Your task to perform on an android device: change the clock display to show seconds Image 0: 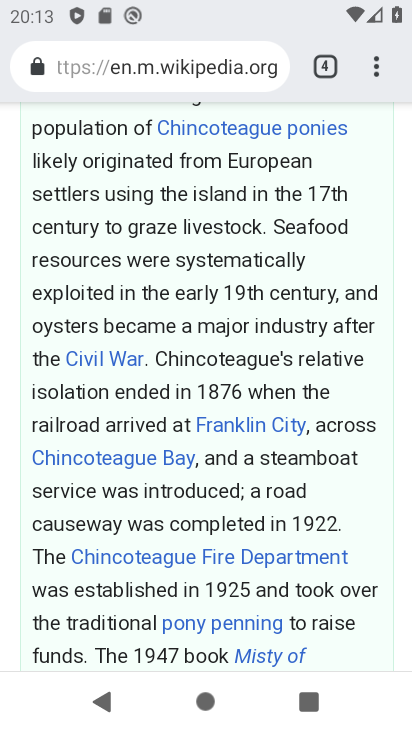
Step 0: press home button
Your task to perform on an android device: change the clock display to show seconds Image 1: 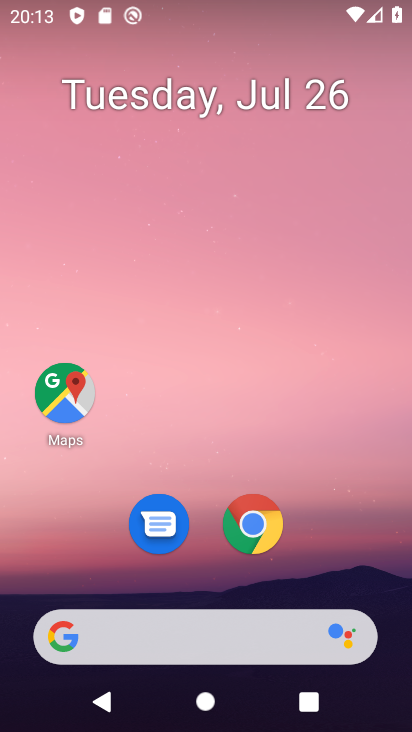
Step 1: drag from (204, 624) to (317, 87)
Your task to perform on an android device: change the clock display to show seconds Image 2: 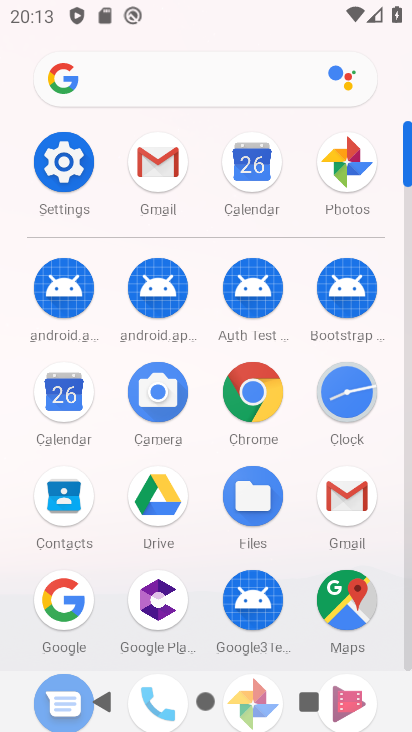
Step 2: click (343, 406)
Your task to perform on an android device: change the clock display to show seconds Image 3: 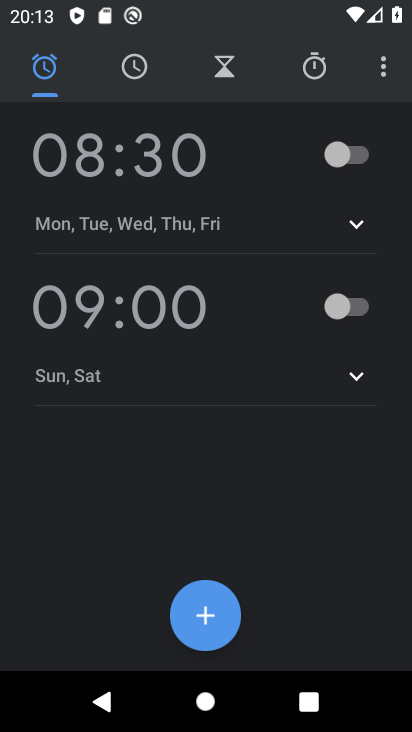
Step 3: click (379, 65)
Your task to perform on an android device: change the clock display to show seconds Image 4: 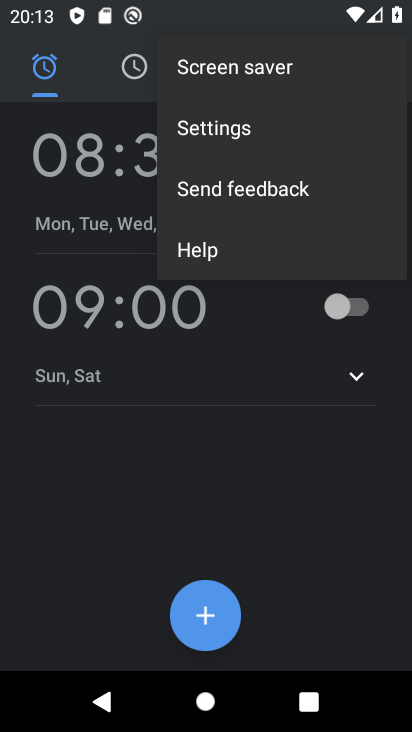
Step 4: click (239, 129)
Your task to perform on an android device: change the clock display to show seconds Image 5: 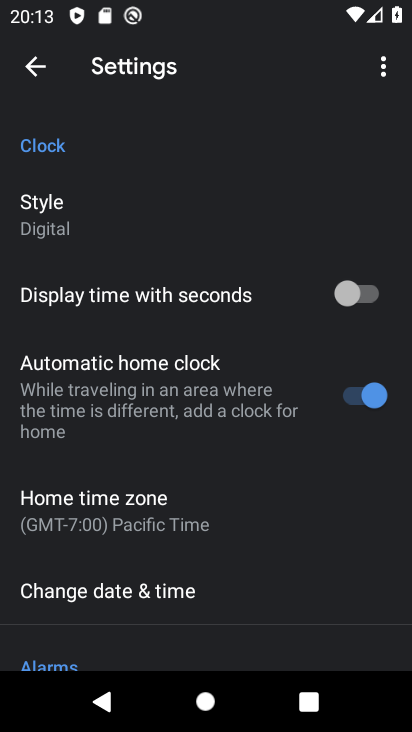
Step 5: click (373, 294)
Your task to perform on an android device: change the clock display to show seconds Image 6: 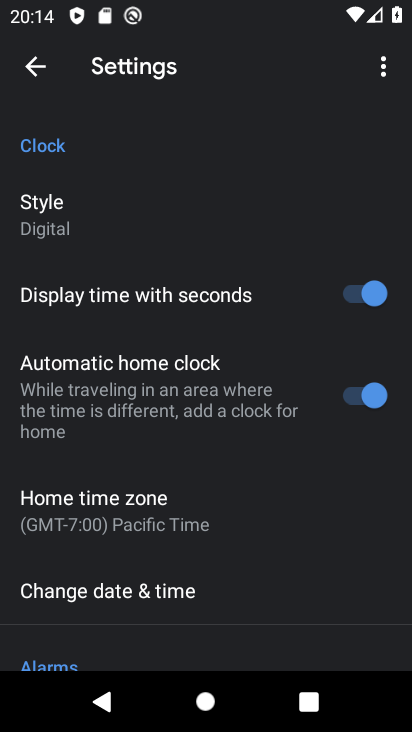
Step 6: task complete